Your task to perform on an android device: Go to Amazon Image 0: 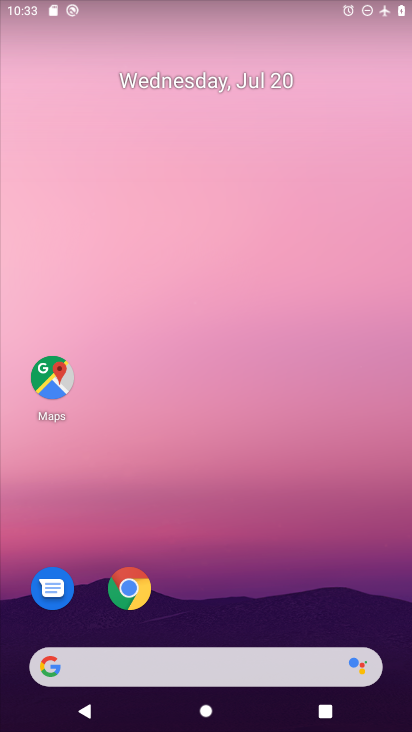
Step 0: click (139, 602)
Your task to perform on an android device: Go to Amazon Image 1: 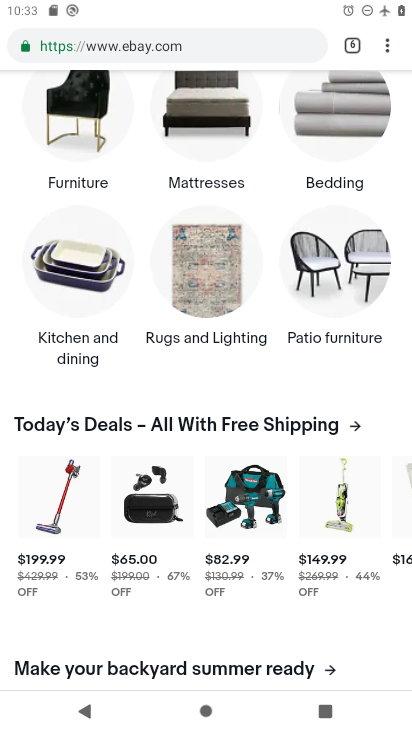
Step 1: click (350, 51)
Your task to perform on an android device: Go to Amazon Image 2: 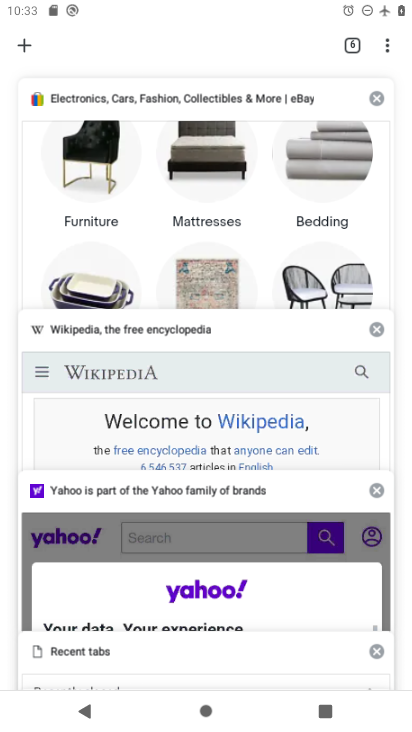
Step 2: click (29, 36)
Your task to perform on an android device: Go to Amazon Image 3: 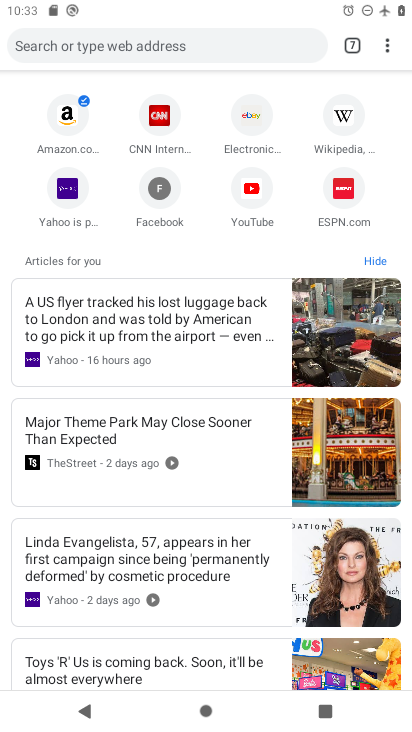
Step 3: click (75, 108)
Your task to perform on an android device: Go to Amazon Image 4: 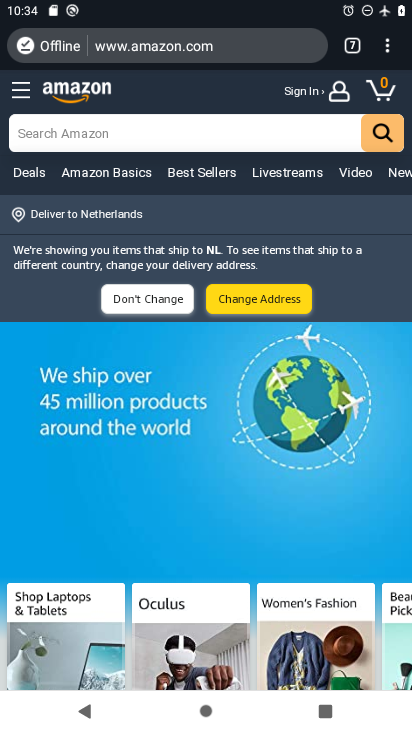
Step 4: task complete